Your task to perform on an android device: change keyboard looks Image 0: 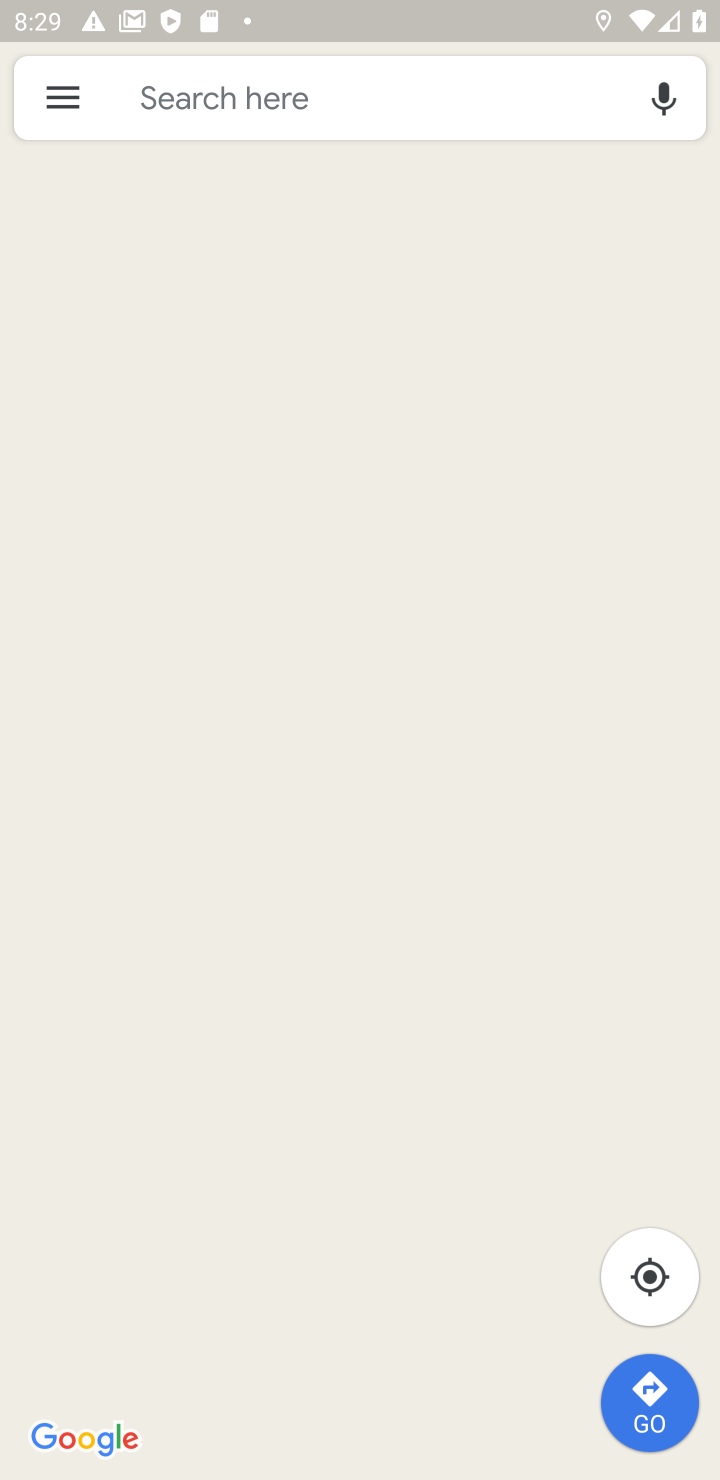
Step 0: press home button
Your task to perform on an android device: change keyboard looks Image 1: 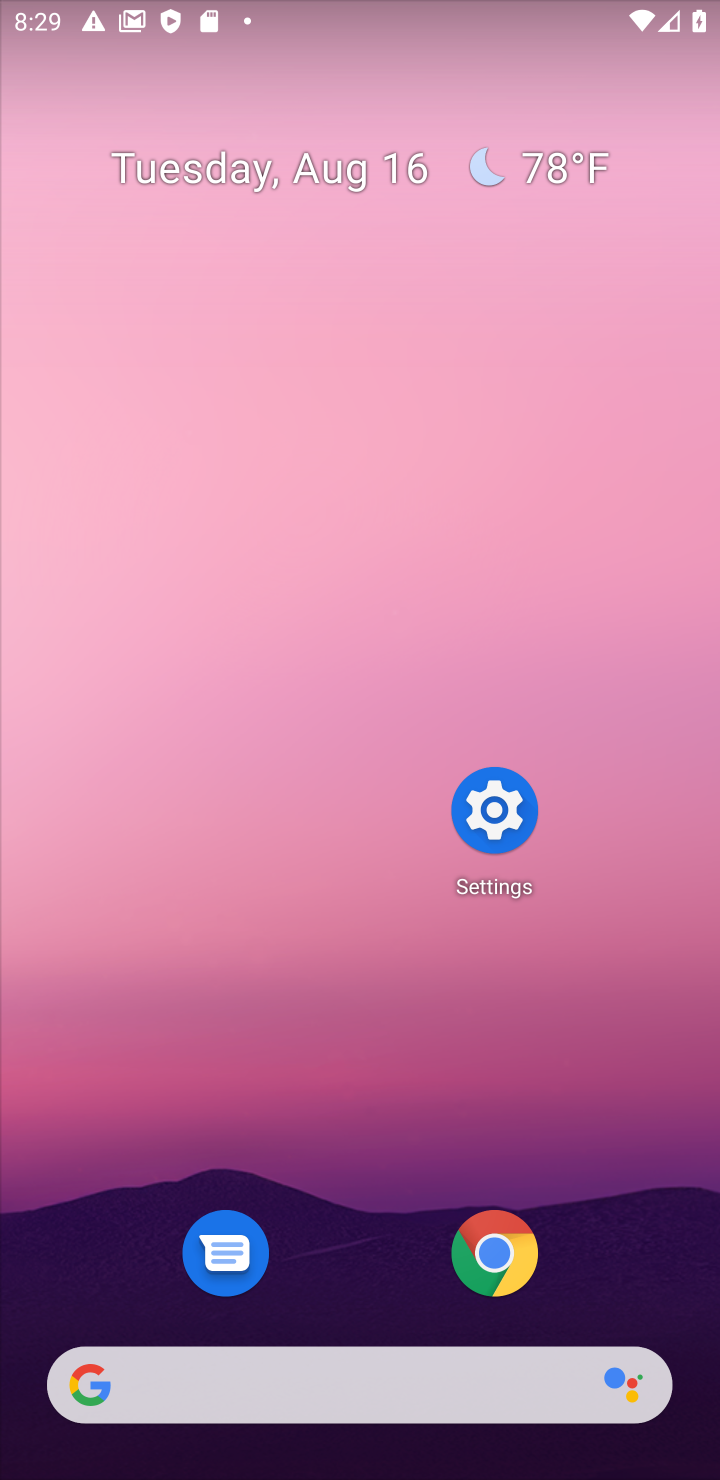
Step 1: click (498, 809)
Your task to perform on an android device: change keyboard looks Image 2: 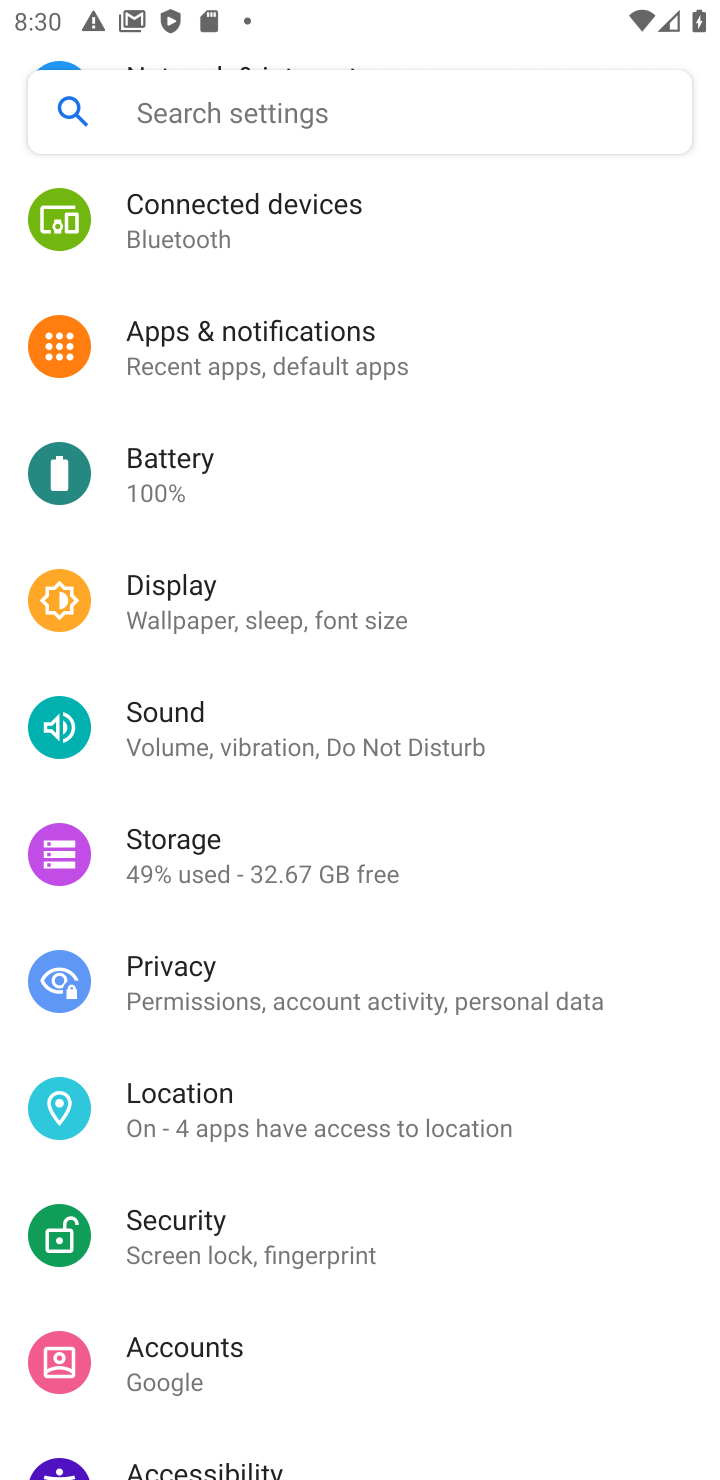
Step 2: drag from (427, 1288) to (618, 144)
Your task to perform on an android device: change keyboard looks Image 3: 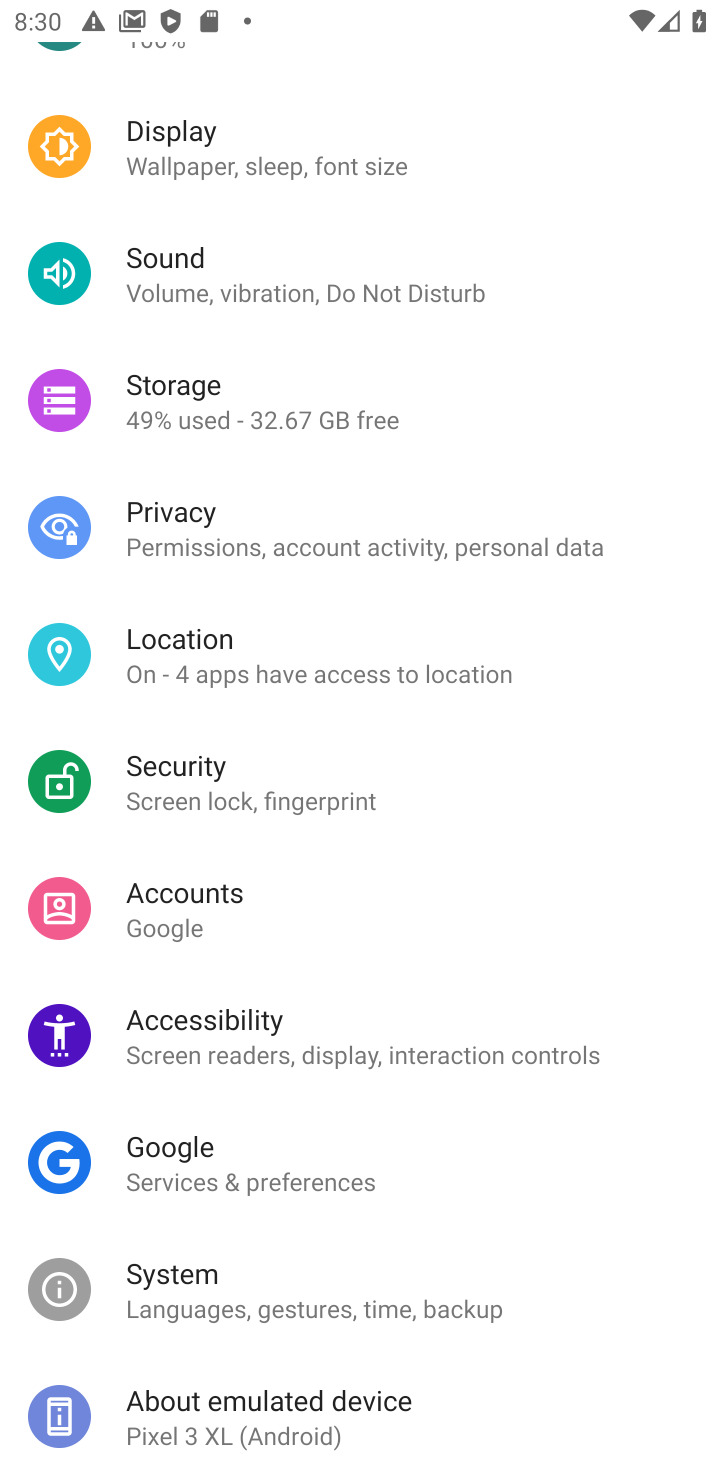
Step 3: click (232, 1275)
Your task to perform on an android device: change keyboard looks Image 4: 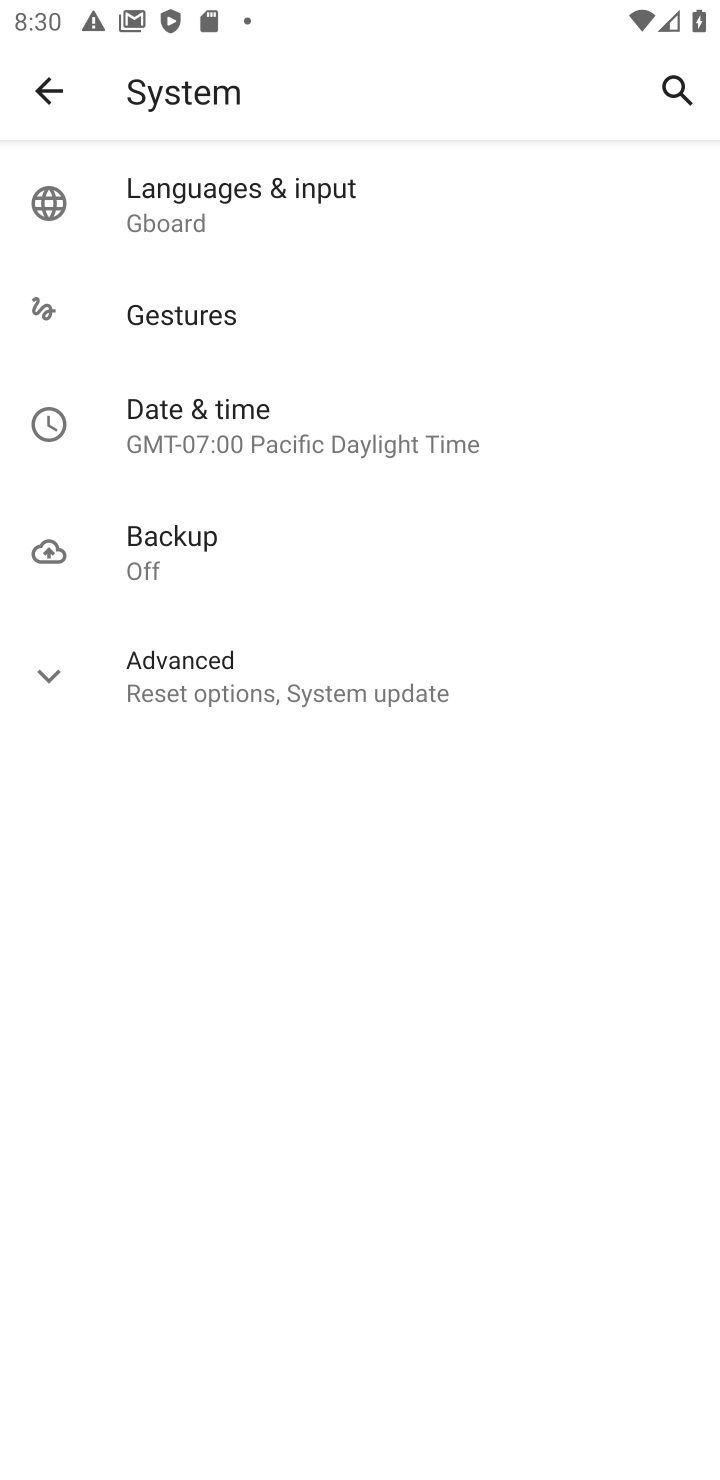
Step 4: click (220, 208)
Your task to perform on an android device: change keyboard looks Image 5: 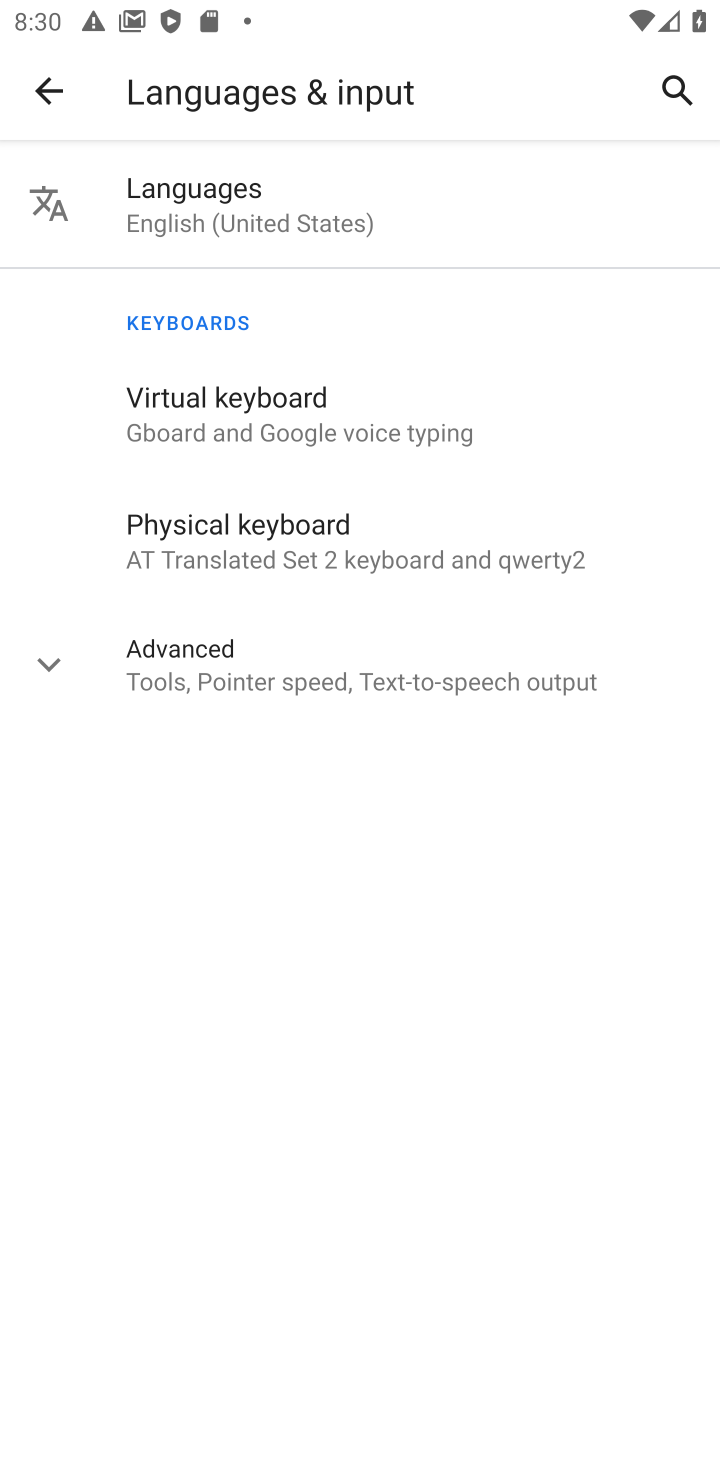
Step 5: click (248, 404)
Your task to perform on an android device: change keyboard looks Image 6: 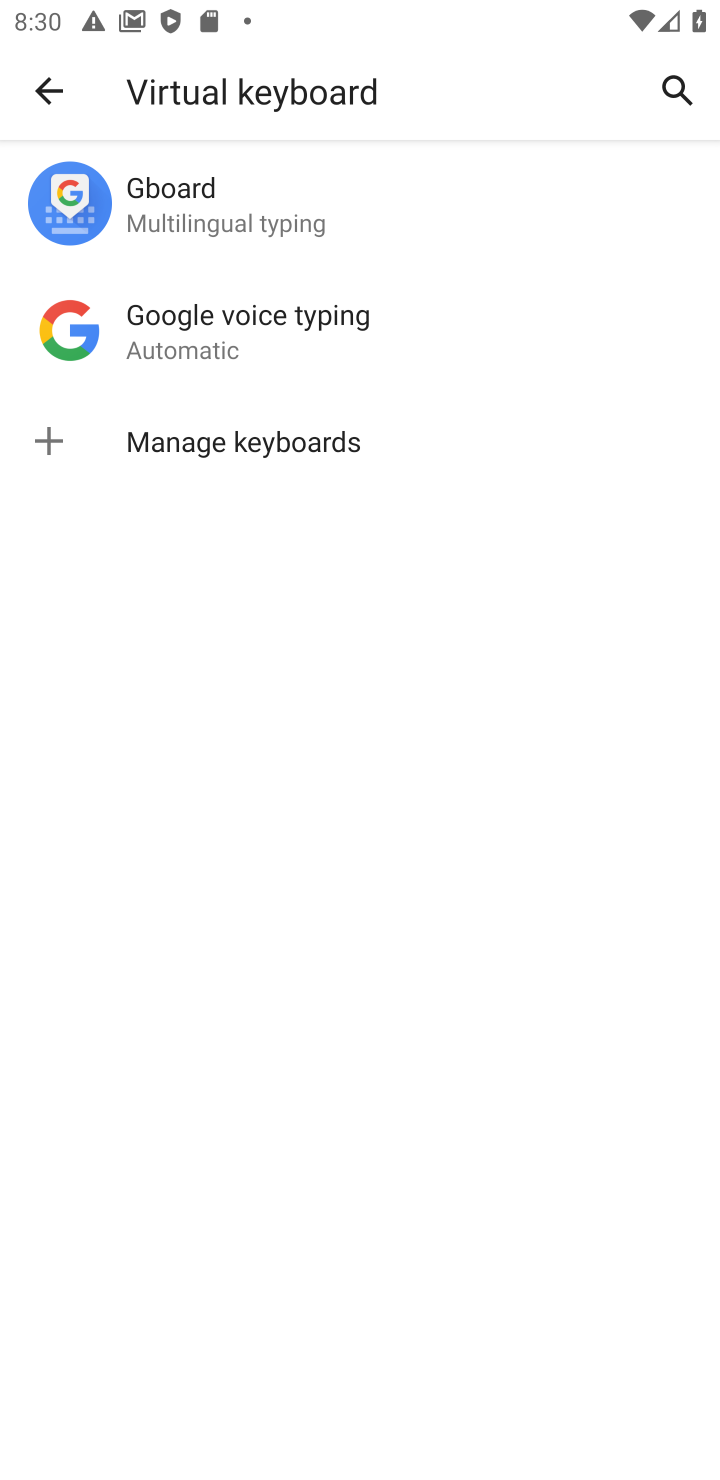
Step 6: click (162, 195)
Your task to perform on an android device: change keyboard looks Image 7: 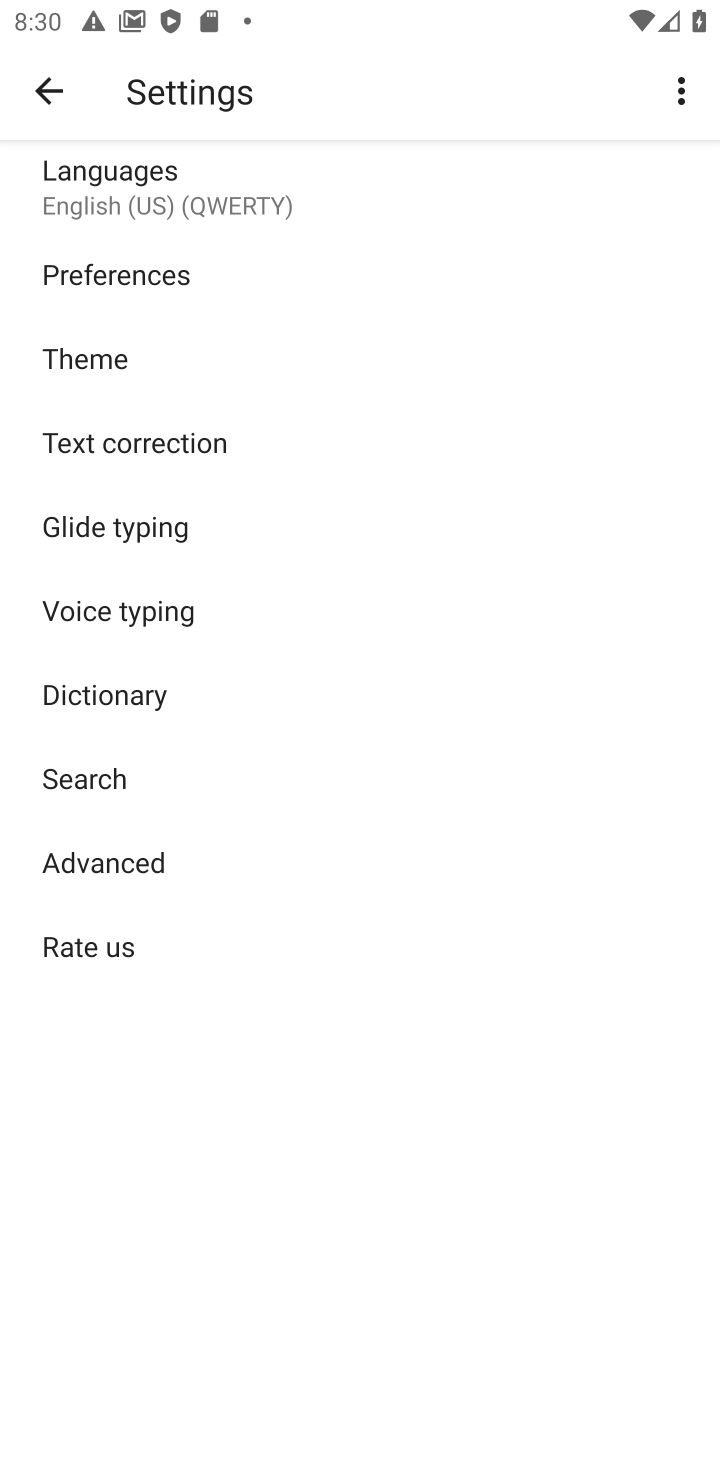
Step 7: click (122, 352)
Your task to perform on an android device: change keyboard looks Image 8: 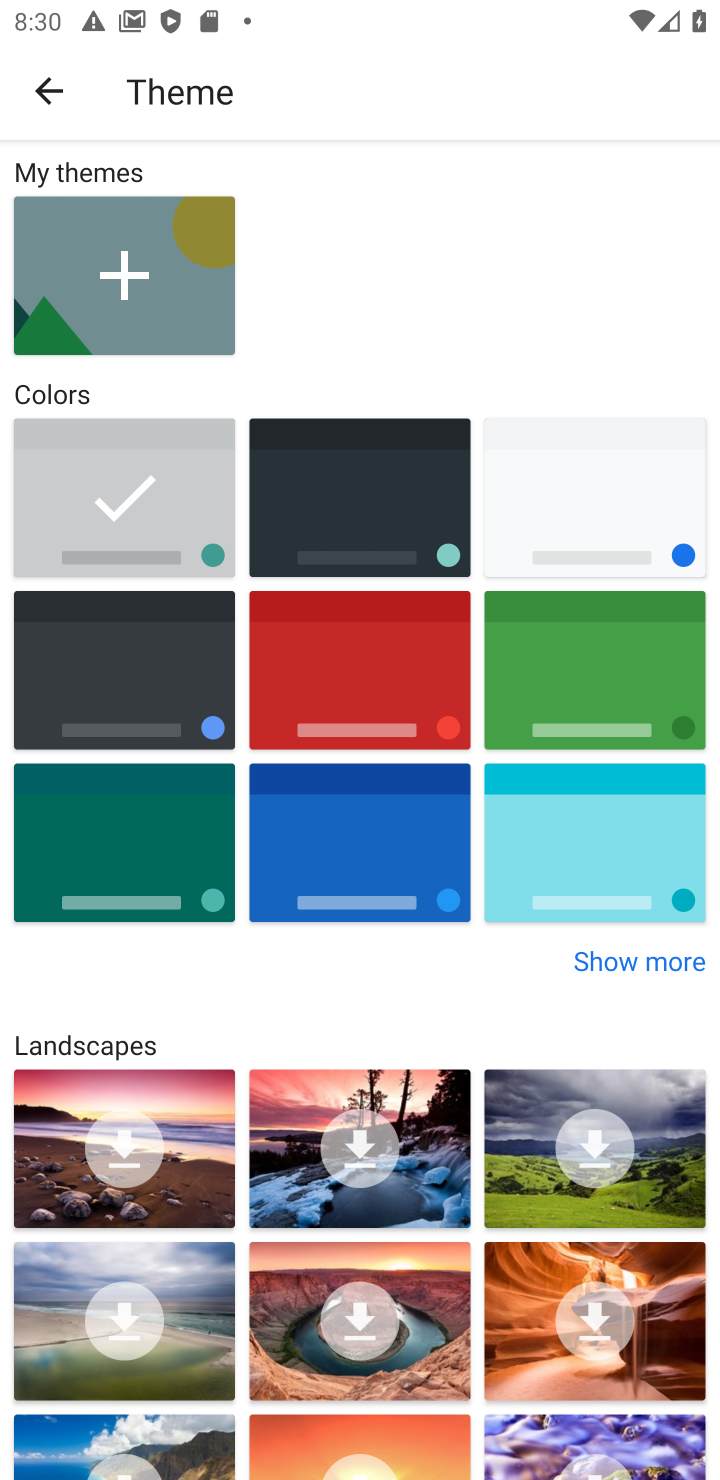
Step 8: click (342, 669)
Your task to perform on an android device: change keyboard looks Image 9: 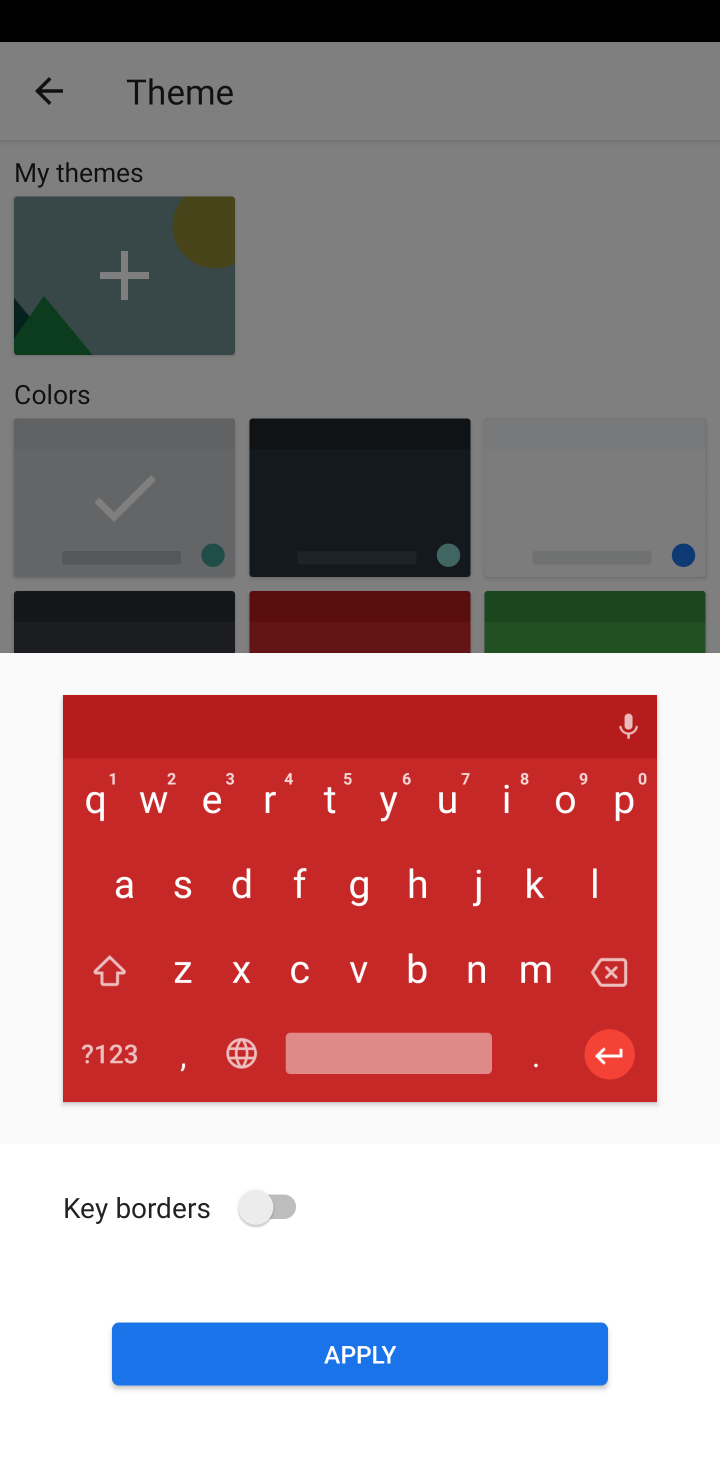
Step 9: click (412, 1342)
Your task to perform on an android device: change keyboard looks Image 10: 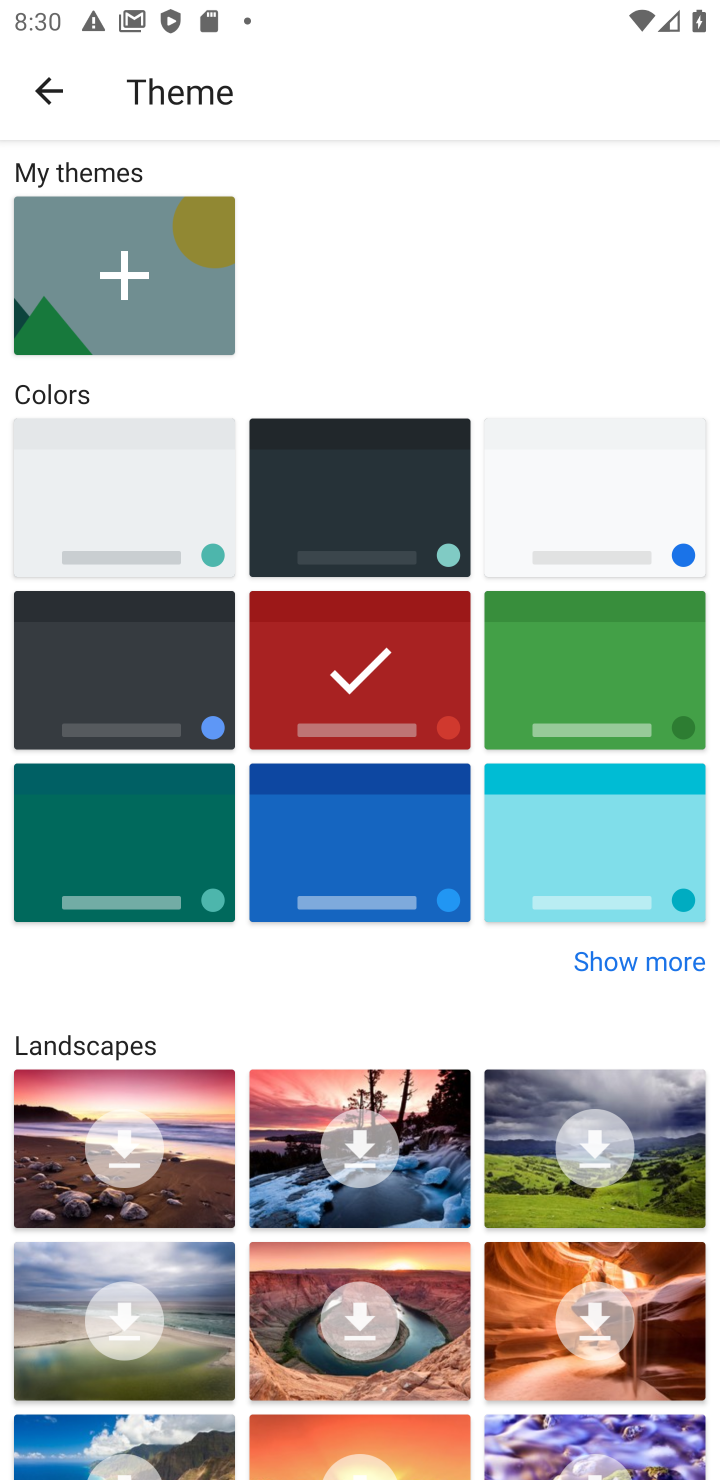
Step 10: task complete